Your task to perform on an android device: Open calendar and show me the fourth week of next month Image 0: 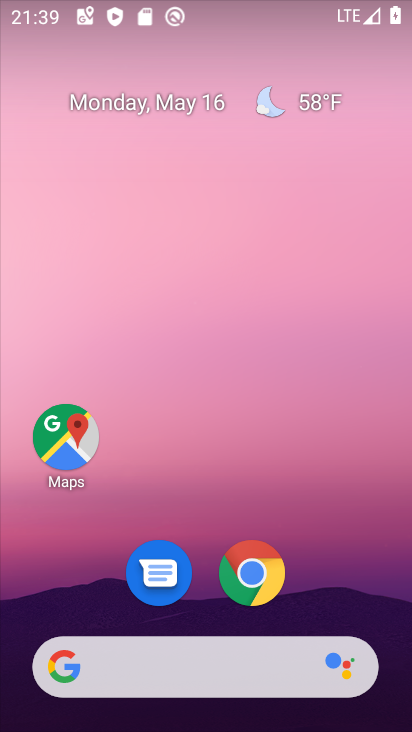
Step 0: drag from (200, 719) to (201, 75)
Your task to perform on an android device: Open calendar and show me the fourth week of next month Image 1: 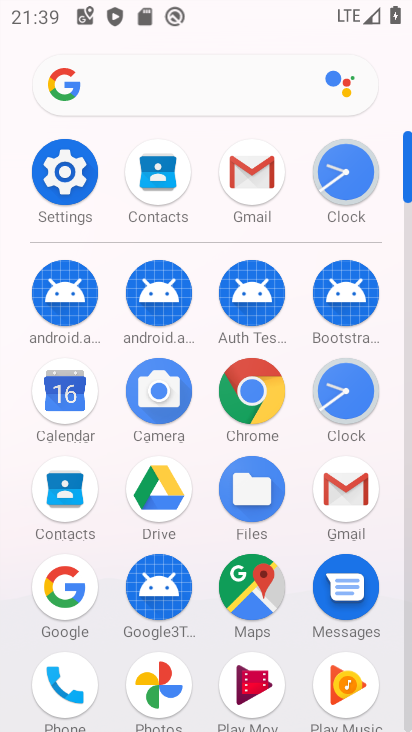
Step 1: click (69, 405)
Your task to perform on an android device: Open calendar and show me the fourth week of next month Image 2: 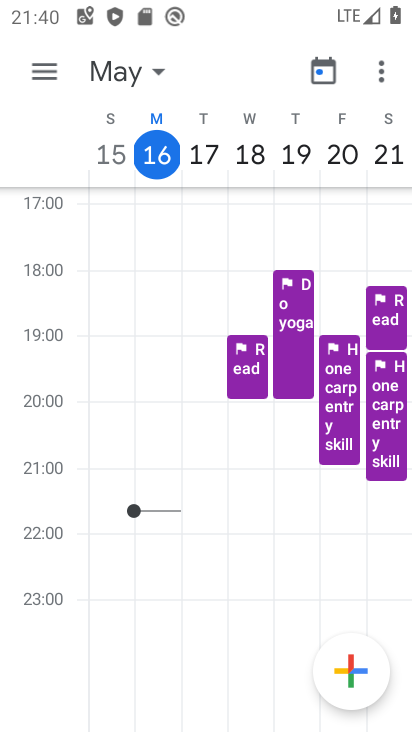
Step 2: click (158, 72)
Your task to perform on an android device: Open calendar and show me the fourth week of next month Image 3: 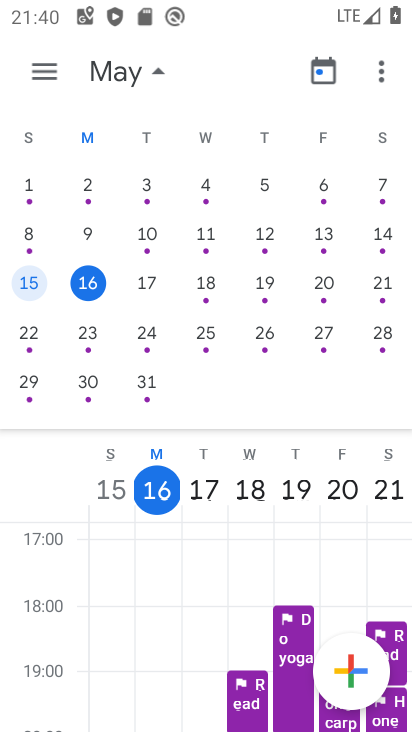
Step 3: drag from (324, 313) to (4, 270)
Your task to perform on an android device: Open calendar and show me the fourth week of next month Image 4: 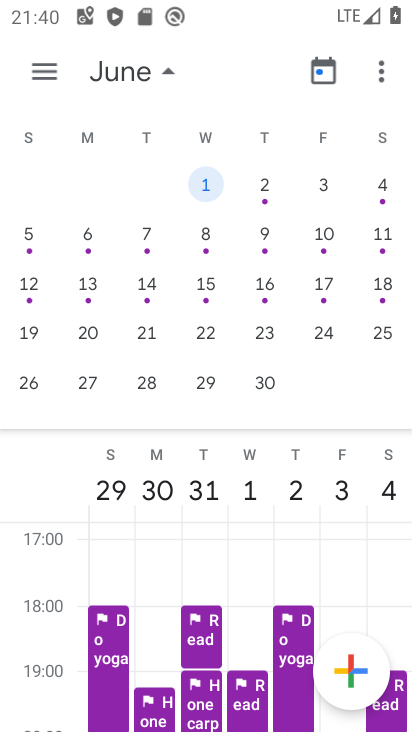
Step 4: click (88, 381)
Your task to perform on an android device: Open calendar and show me the fourth week of next month Image 5: 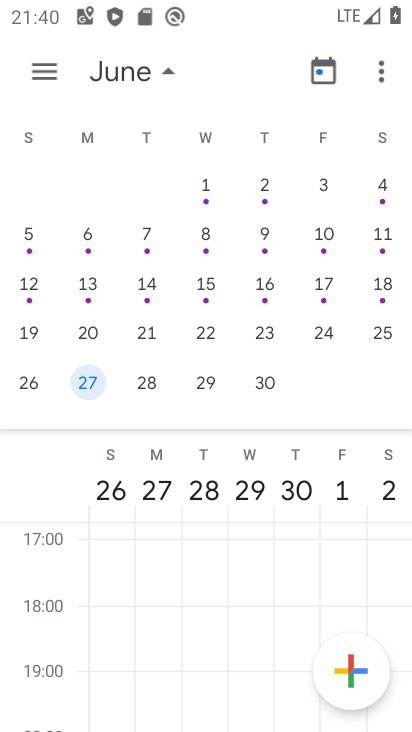
Step 5: task complete